Your task to perform on an android device: See recent photos Image 0: 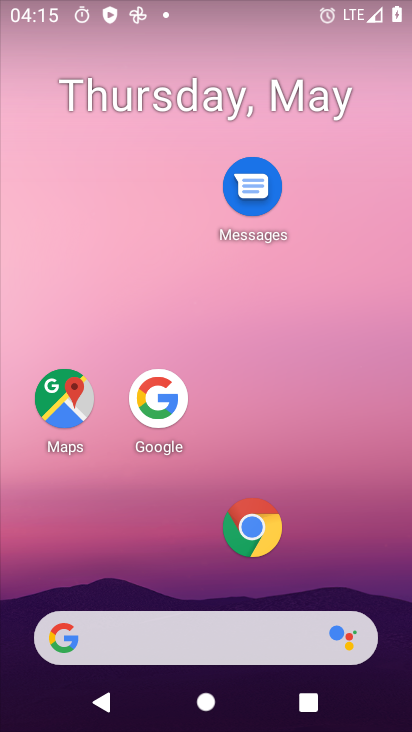
Step 0: click (389, 667)
Your task to perform on an android device: See recent photos Image 1: 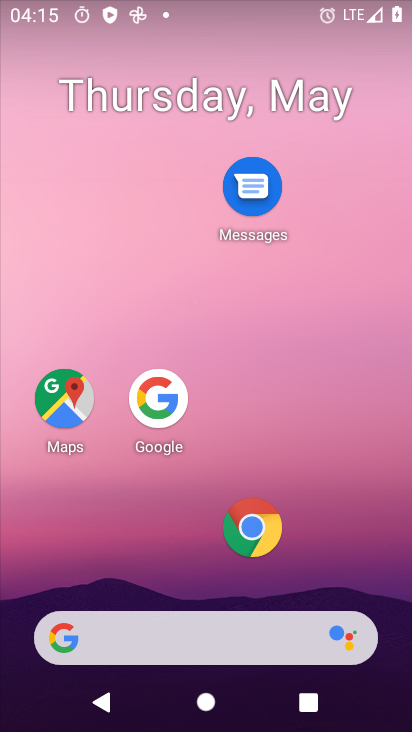
Step 1: drag from (217, 586) to (218, 215)
Your task to perform on an android device: See recent photos Image 2: 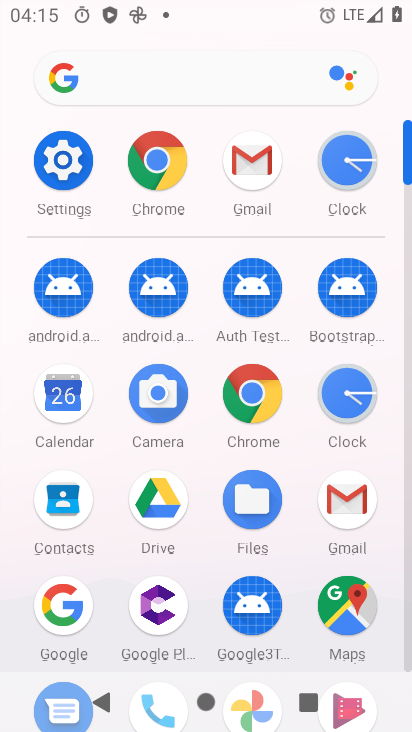
Step 2: drag from (208, 553) to (207, 197)
Your task to perform on an android device: See recent photos Image 3: 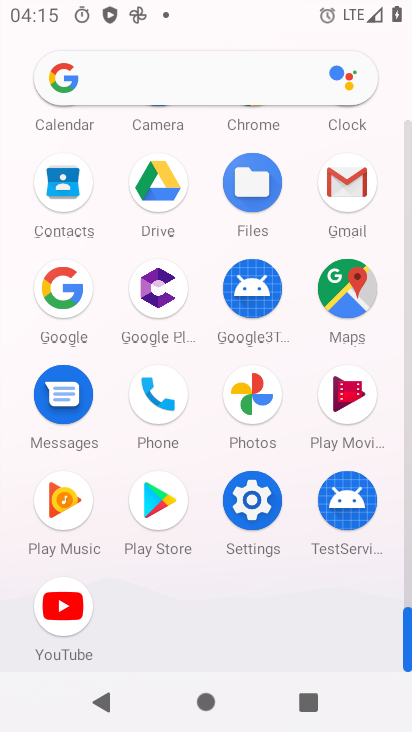
Step 3: click (249, 403)
Your task to perform on an android device: See recent photos Image 4: 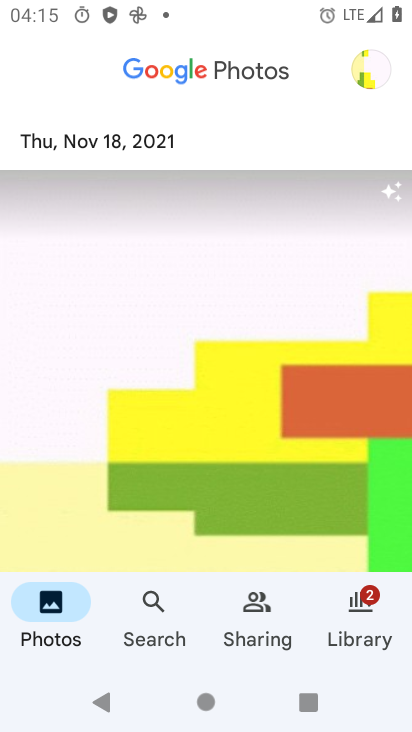
Step 4: drag from (315, 462) to (7, 446)
Your task to perform on an android device: See recent photos Image 5: 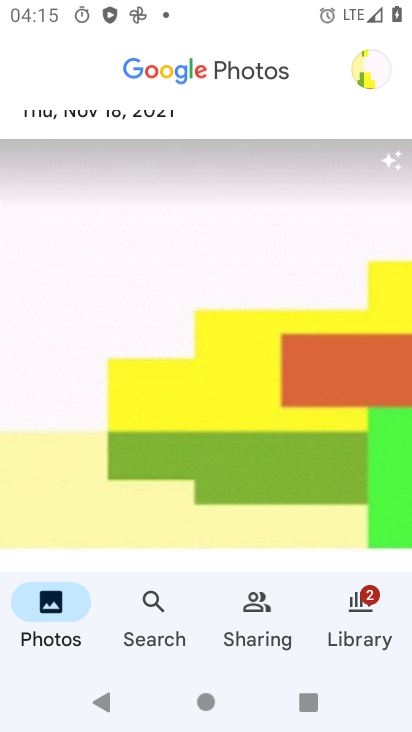
Step 5: click (364, 79)
Your task to perform on an android device: See recent photos Image 6: 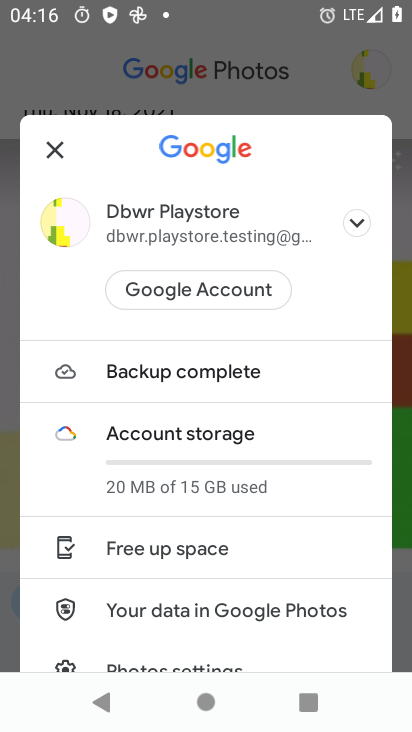
Step 6: click (49, 153)
Your task to perform on an android device: See recent photos Image 7: 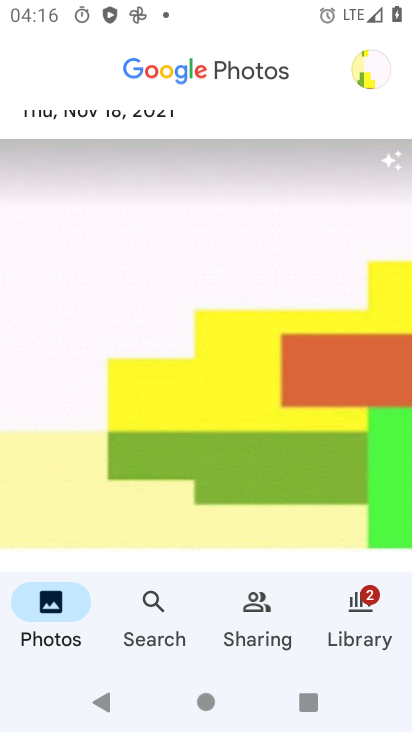
Step 7: task complete